Your task to perform on an android device: Go to battery settings Image 0: 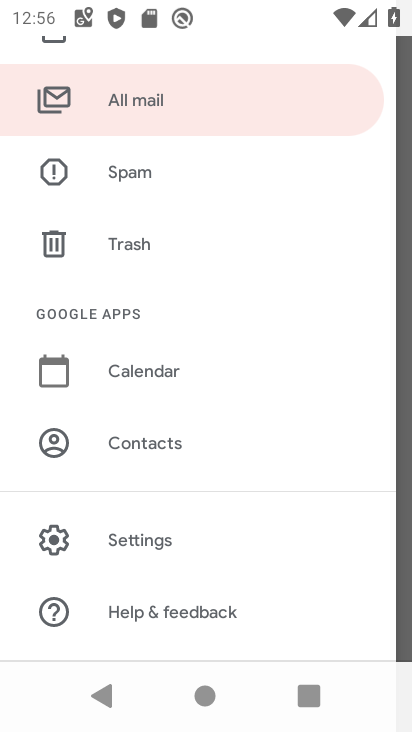
Step 0: press home button
Your task to perform on an android device: Go to battery settings Image 1: 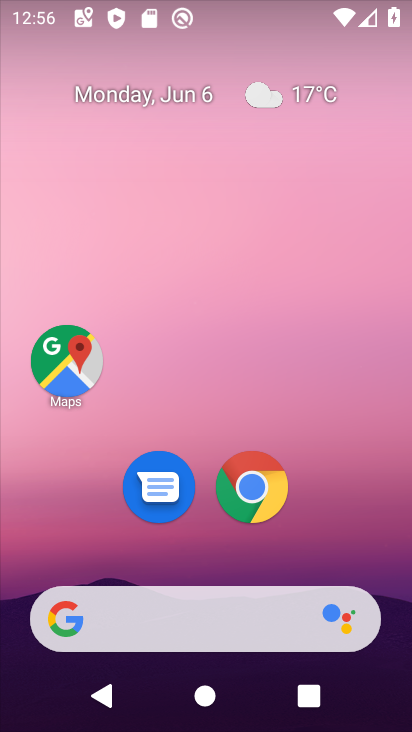
Step 1: drag from (104, 576) to (158, 210)
Your task to perform on an android device: Go to battery settings Image 2: 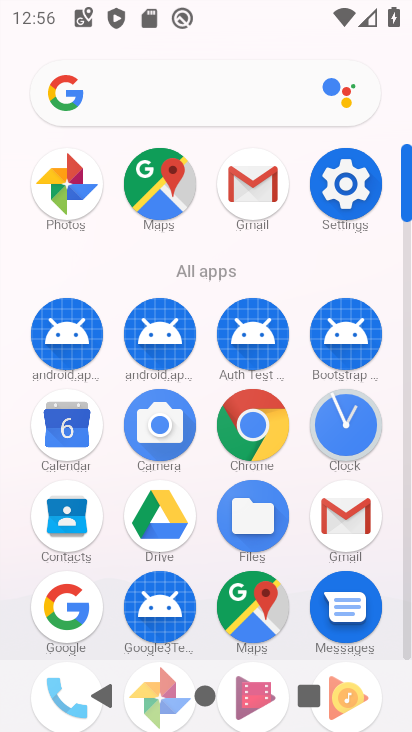
Step 2: drag from (131, 606) to (184, 333)
Your task to perform on an android device: Go to battery settings Image 3: 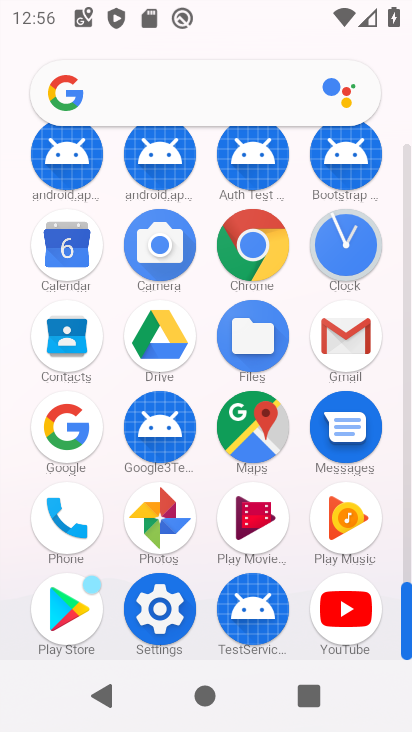
Step 3: click (163, 631)
Your task to perform on an android device: Go to battery settings Image 4: 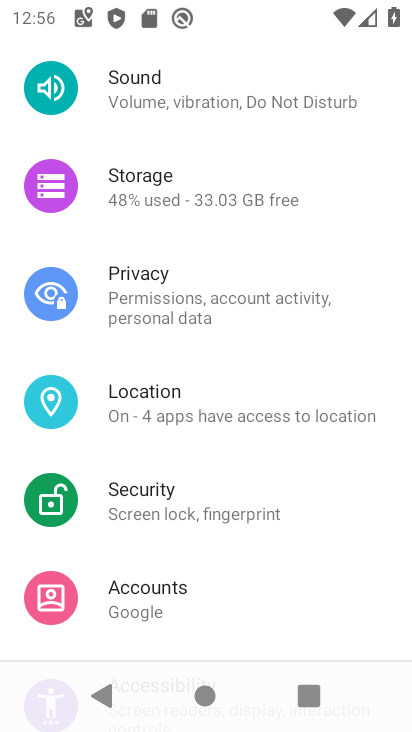
Step 4: drag from (176, 329) to (143, 657)
Your task to perform on an android device: Go to battery settings Image 5: 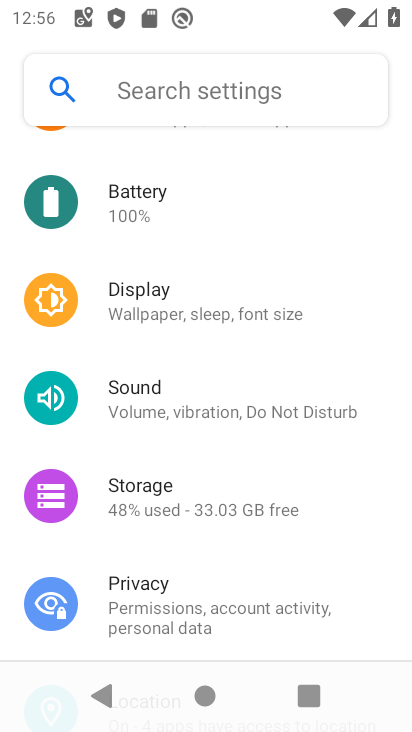
Step 5: click (207, 230)
Your task to perform on an android device: Go to battery settings Image 6: 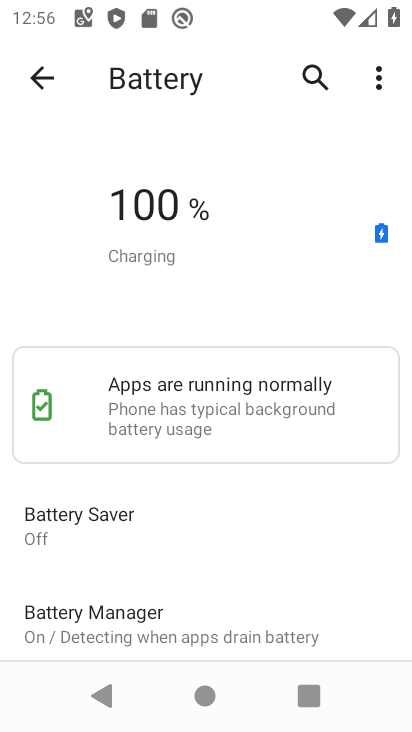
Step 6: task complete